Your task to perform on an android device: install app "DuckDuckGo Privacy Browser" Image 0: 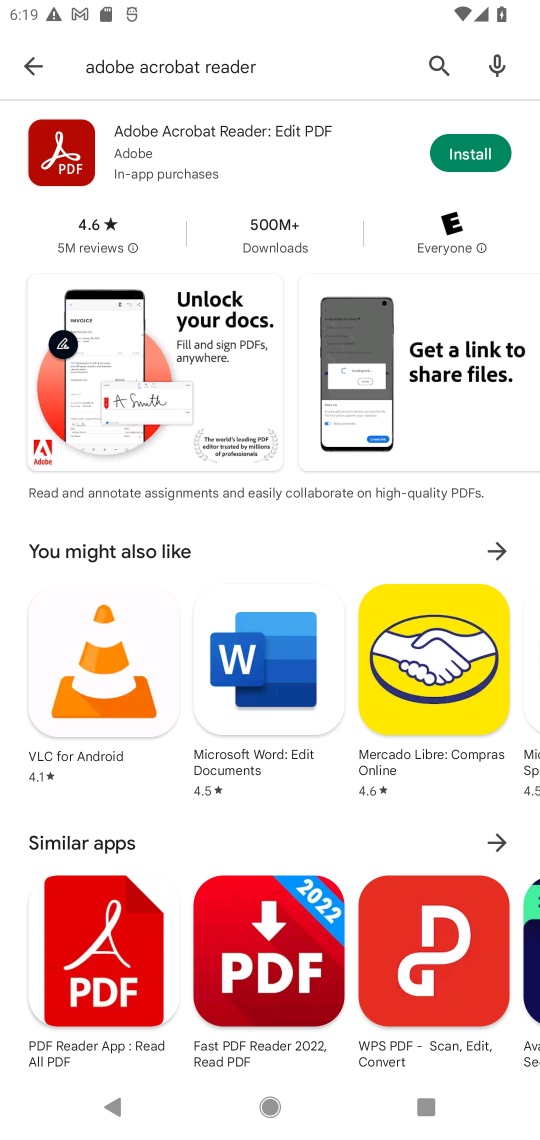
Step 0: click (431, 64)
Your task to perform on an android device: install app "DuckDuckGo Privacy Browser" Image 1: 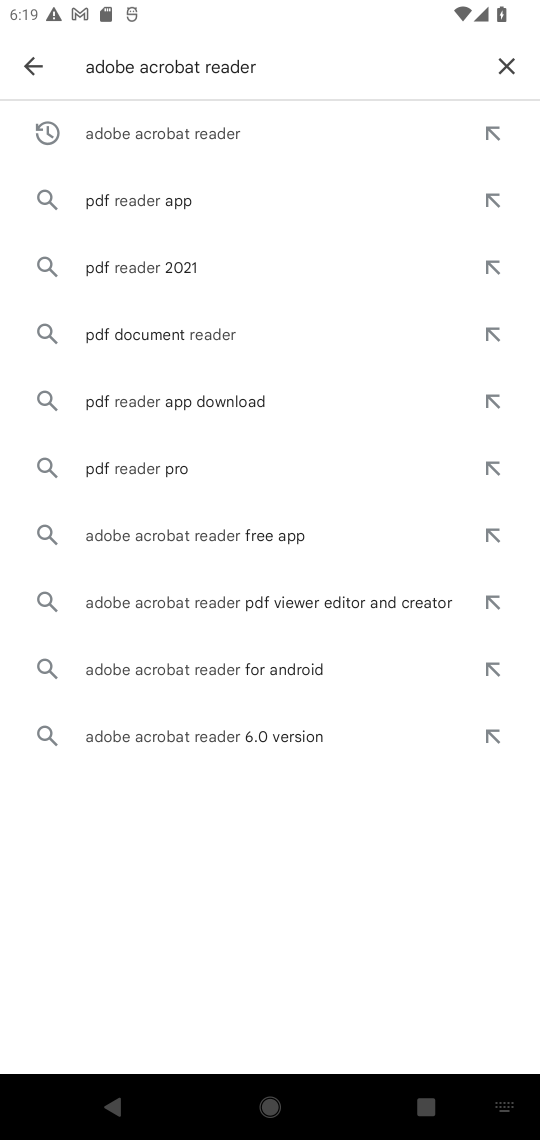
Step 1: click (505, 65)
Your task to perform on an android device: install app "DuckDuckGo Privacy Browser" Image 2: 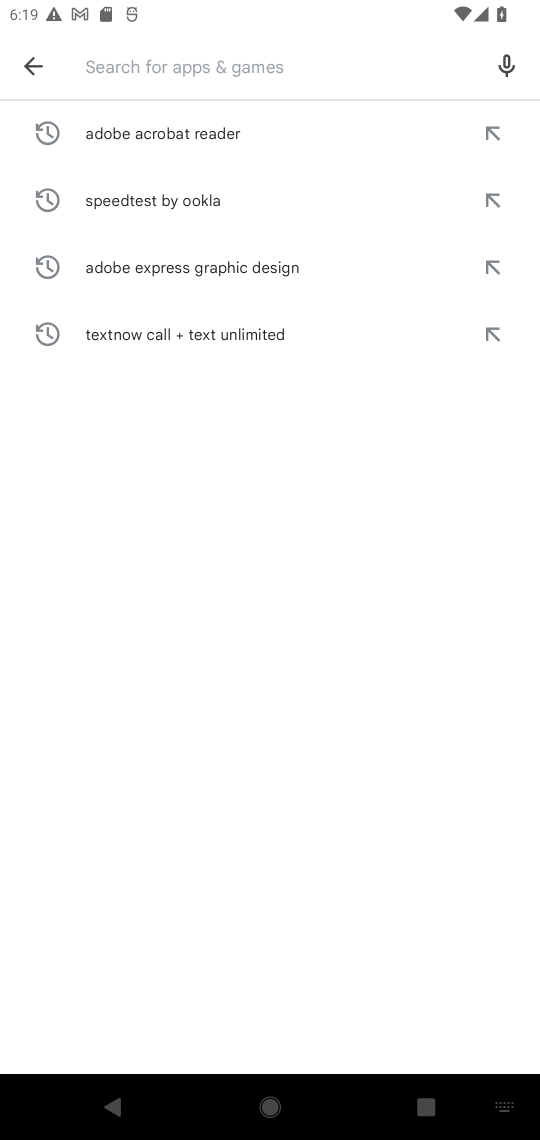
Step 2: type "DuckDuckGo Privacy Browser"
Your task to perform on an android device: install app "DuckDuckGo Privacy Browser" Image 3: 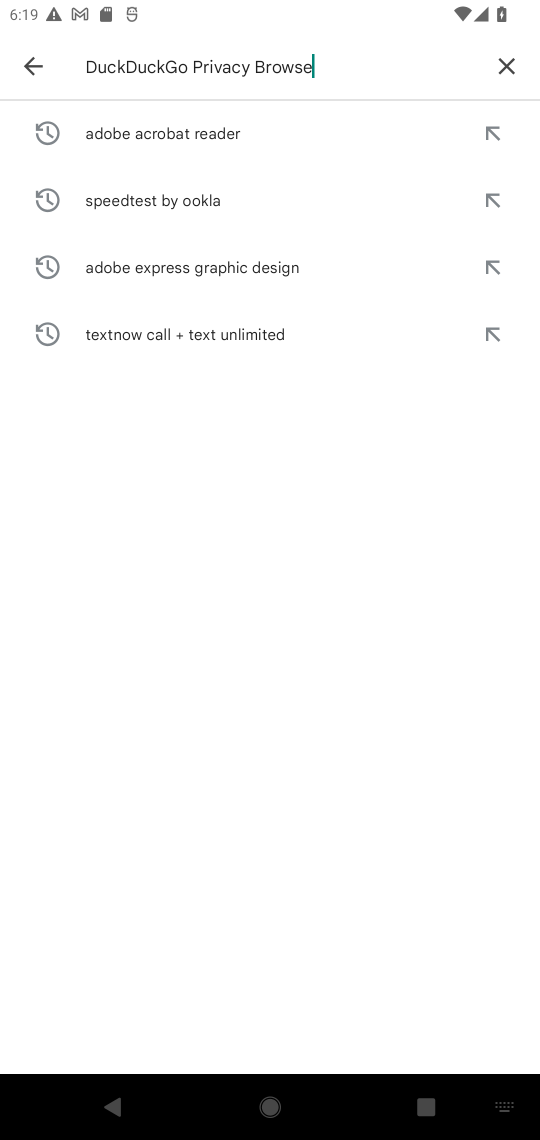
Step 3: type ""
Your task to perform on an android device: install app "DuckDuckGo Privacy Browser" Image 4: 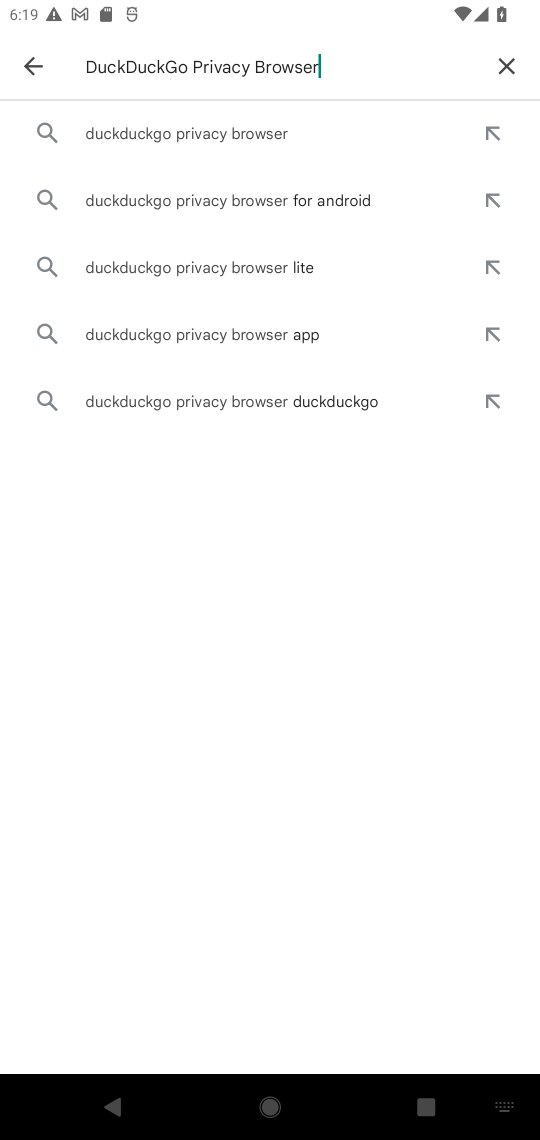
Step 4: click (208, 125)
Your task to perform on an android device: install app "DuckDuckGo Privacy Browser" Image 5: 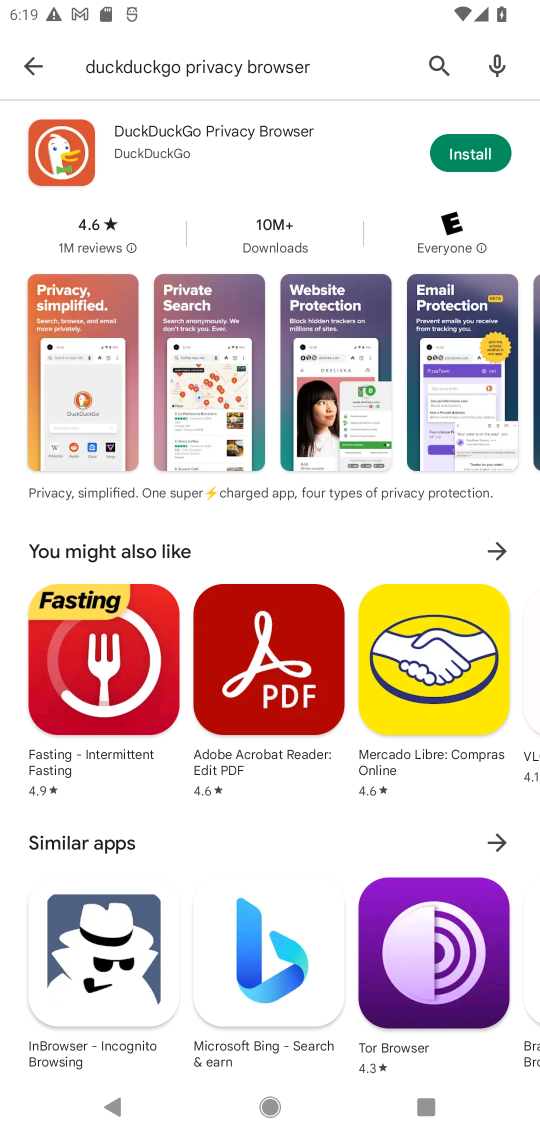
Step 5: click (469, 152)
Your task to perform on an android device: install app "DuckDuckGo Privacy Browser" Image 6: 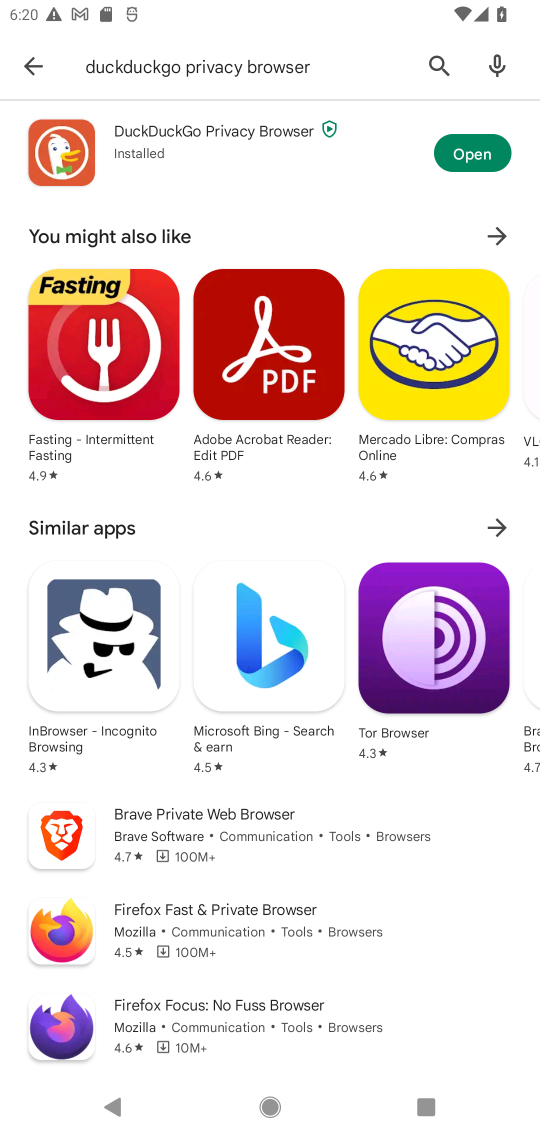
Step 6: task complete